Your task to perform on an android device: Go to CNN.com Image 0: 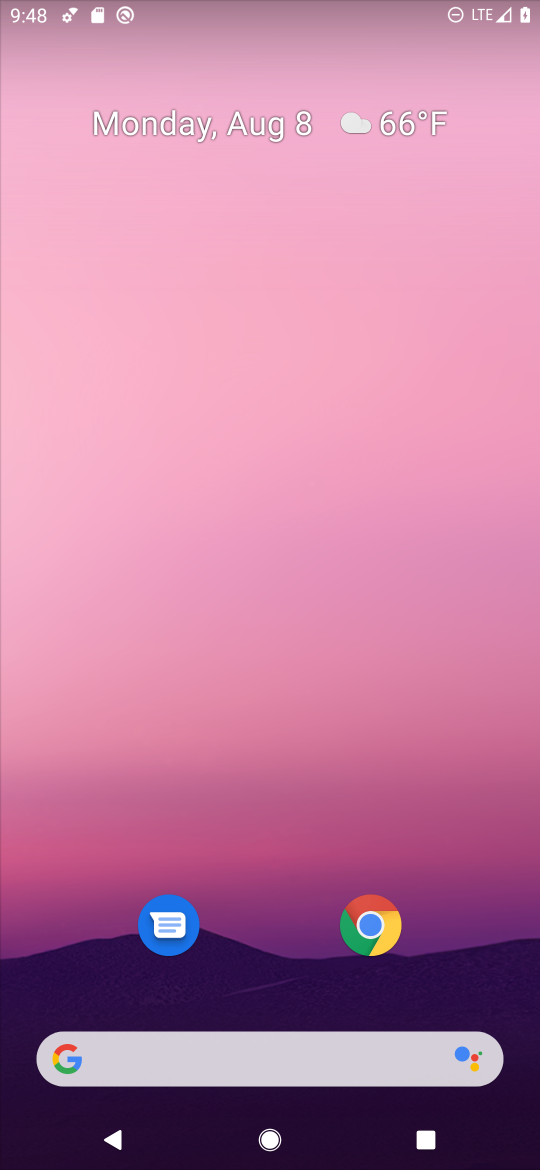
Step 0: drag from (285, 922) to (268, 251)
Your task to perform on an android device: Go to CNN.com Image 1: 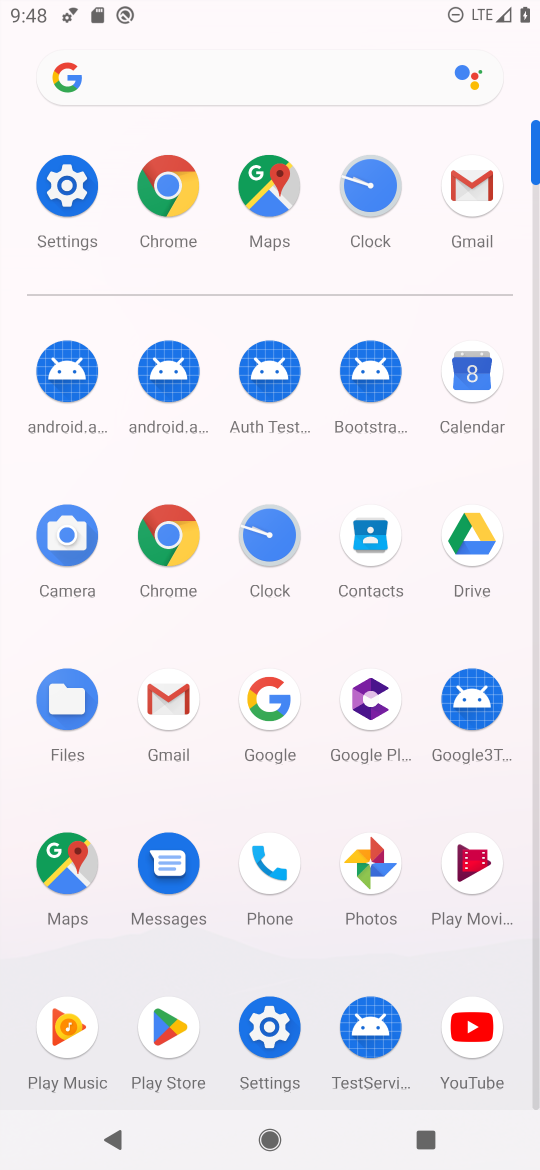
Step 1: click (184, 529)
Your task to perform on an android device: Go to CNN.com Image 2: 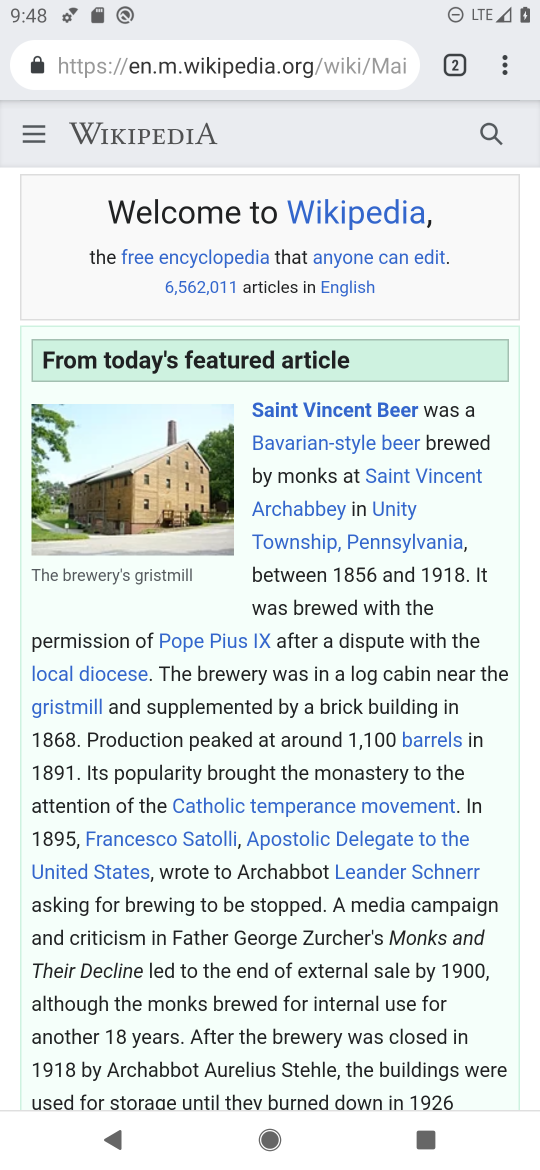
Step 2: click (321, 59)
Your task to perform on an android device: Go to CNN.com Image 3: 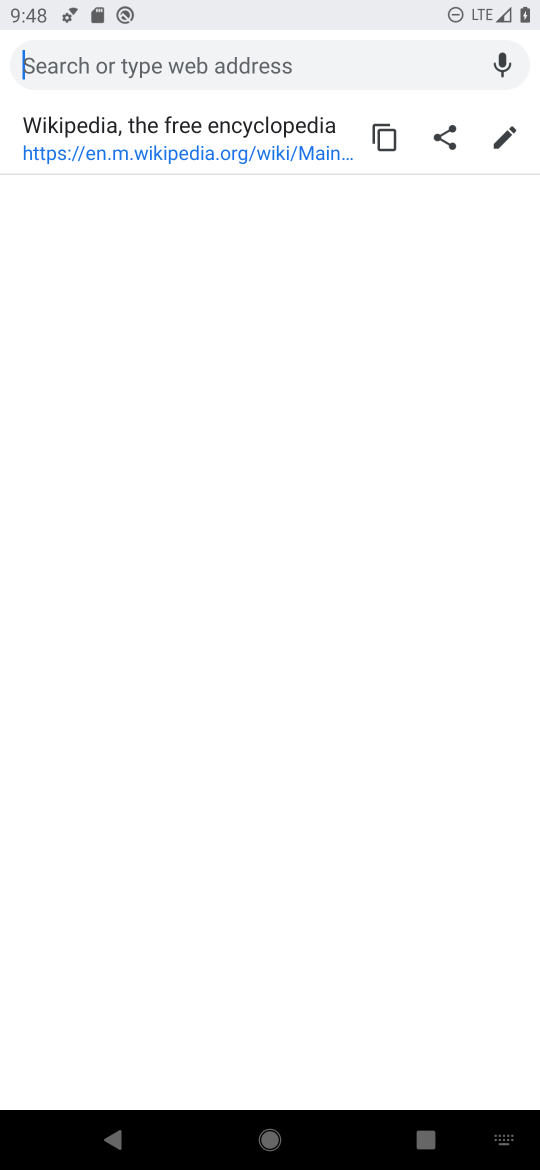
Step 3: type "cnn..com"
Your task to perform on an android device: Go to CNN.com Image 4: 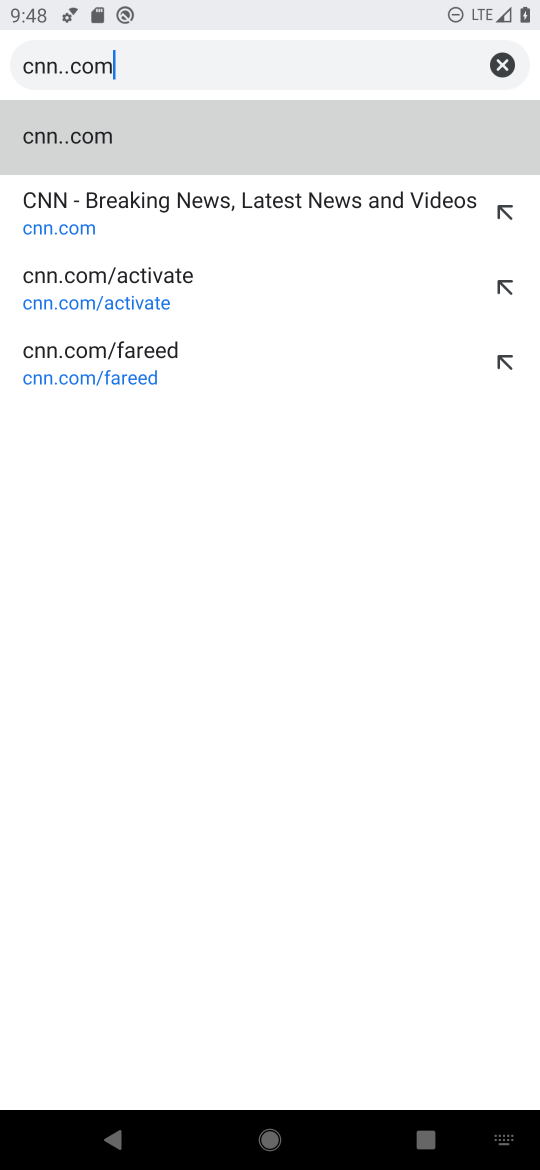
Step 4: click (138, 148)
Your task to perform on an android device: Go to CNN.com Image 5: 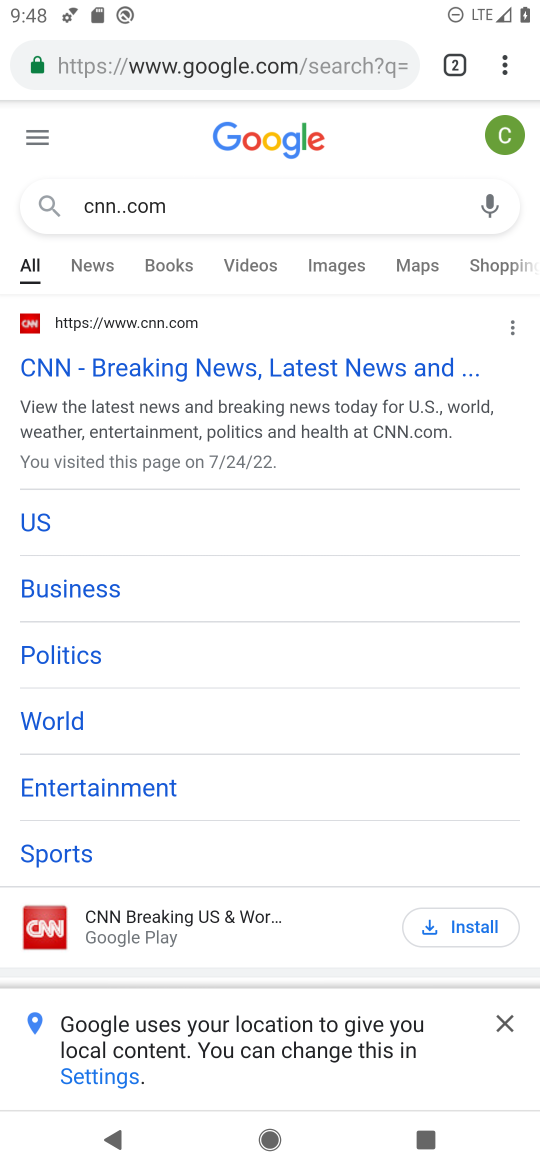
Step 5: click (234, 371)
Your task to perform on an android device: Go to CNN.com Image 6: 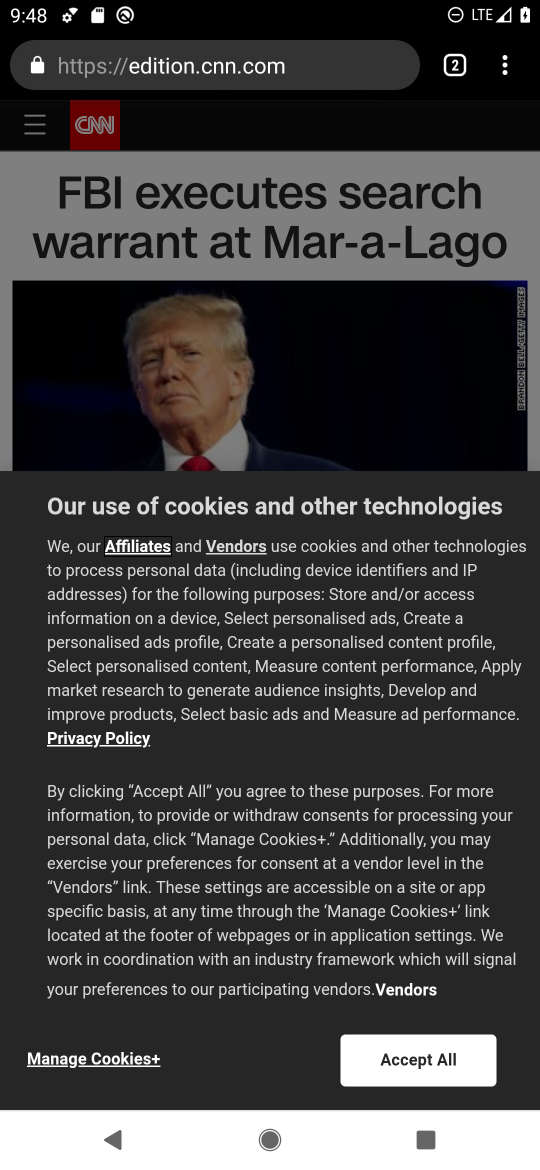
Step 6: task complete